Your task to perform on an android device: toggle airplane mode Image 0: 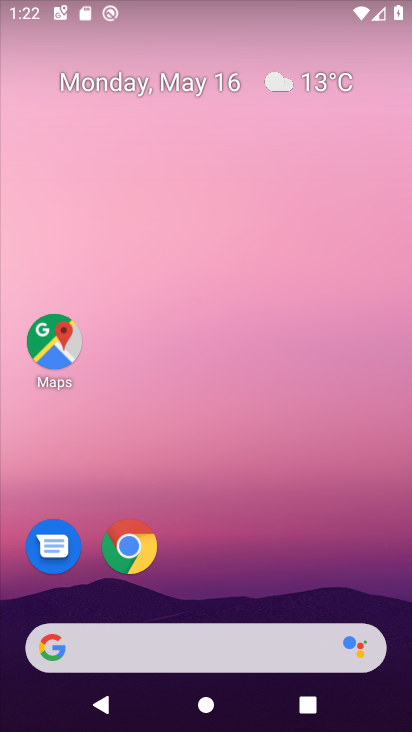
Step 0: drag from (221, 722) to (221, 180)
Your task to perform on an android device: toggle airplane mode Image 1: 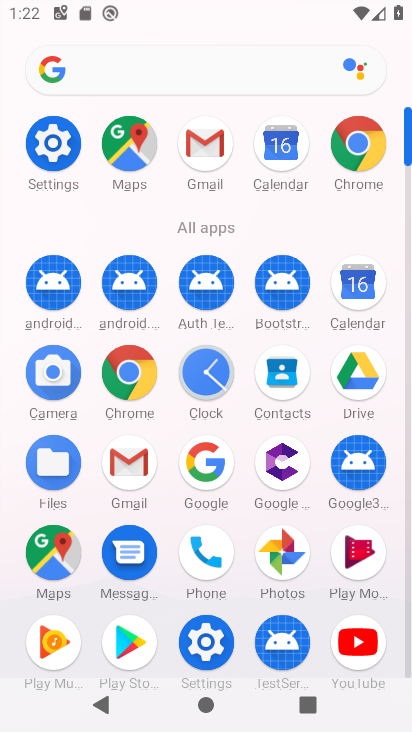
Step 1: click (54, 162)
Your task to perform on an android device: toggle airplane mode Image 2: 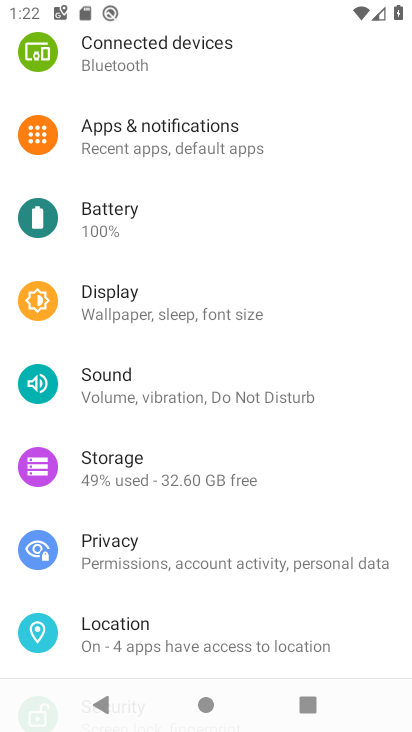
Step 2: drag from (151, 149) to (171, 543)
Your task to perform on an android device: toggle airplane mode Image 3: 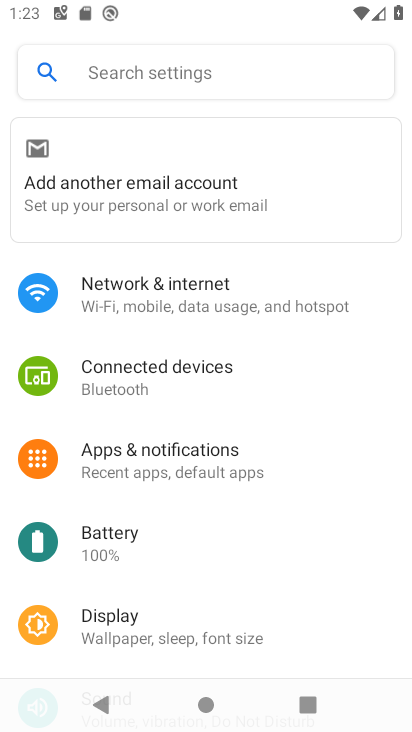
Step 3: click (167, 288)
Your task to perform on an android device: toggle airplane mode Image 4: 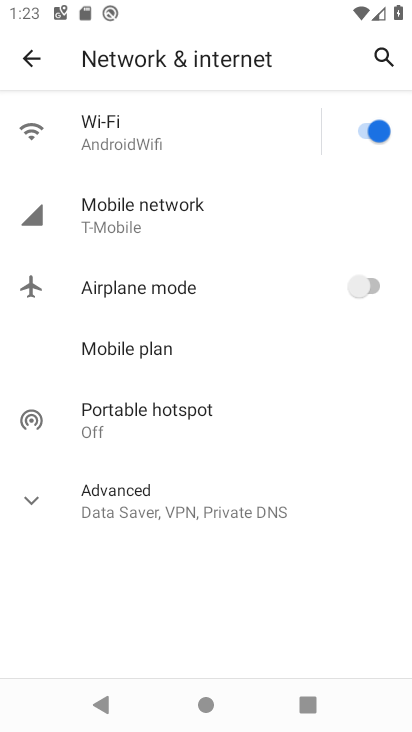
Step 4: click (372, 283)
Your task to perform on an android device: toggle airplane mode Image 5: 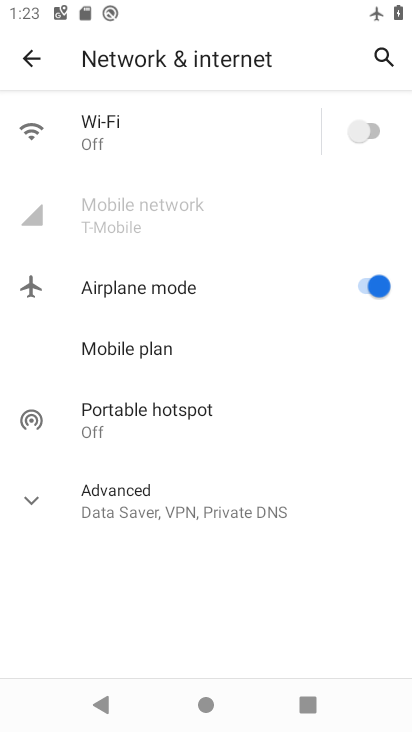
Step 5: task complete